Your task to perform on an android device: Go to settings Image 0: 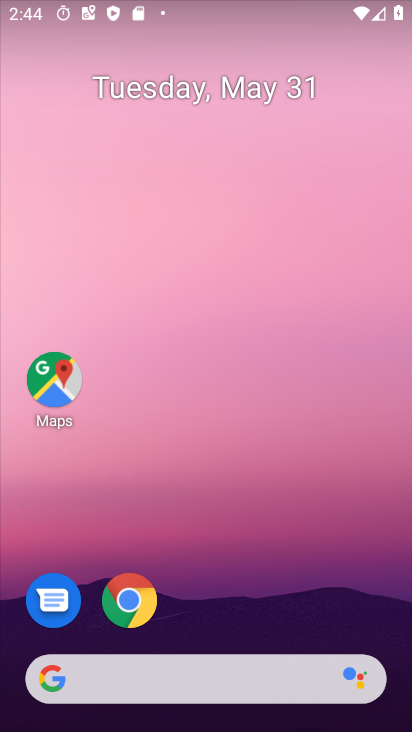
Step 0: press home button
Your task to perform on an android device: Go to settings Image 1: 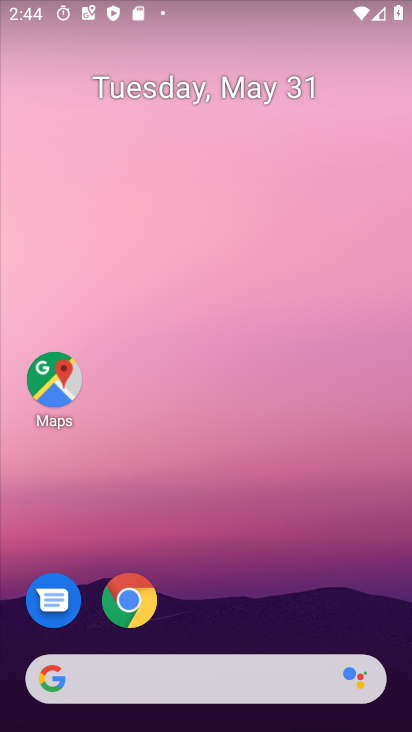
Step 1: drag from (228, 636) to (225, 136)
Your task to perform on an android device: Go to settings Image 2: 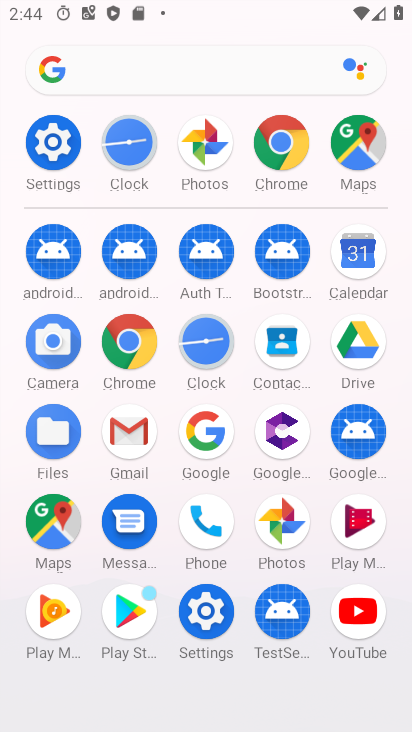
Step 2: click (49, 135)
Your task to perform on an android device: Go to settings Image 3: 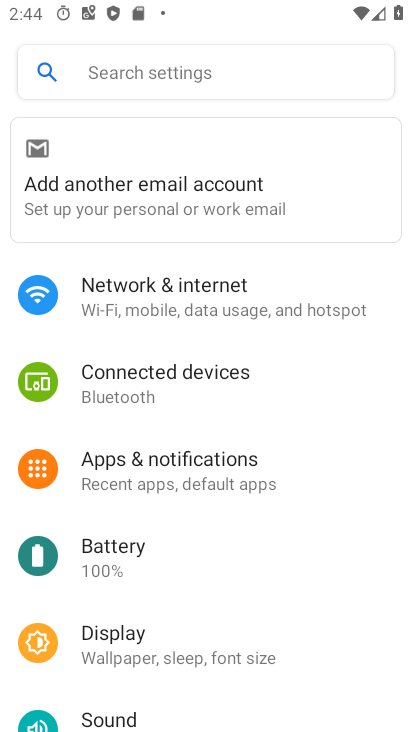
Step 3: task complete